Your task to perform on an android device: open wifi settings Image 0: 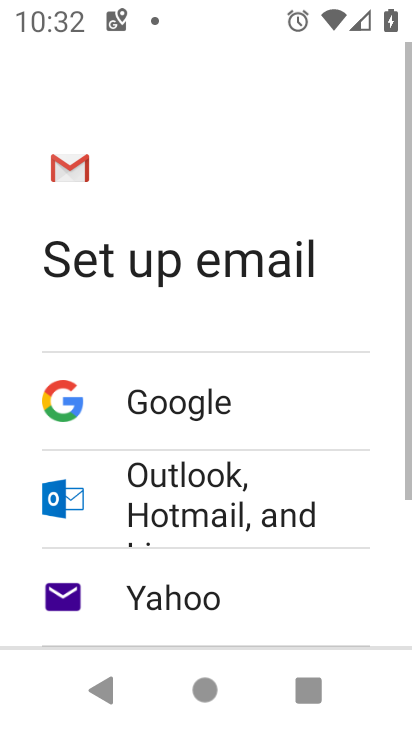
Step 0: press home button
Your task to perform on an android device: open wifi settings Image 1: 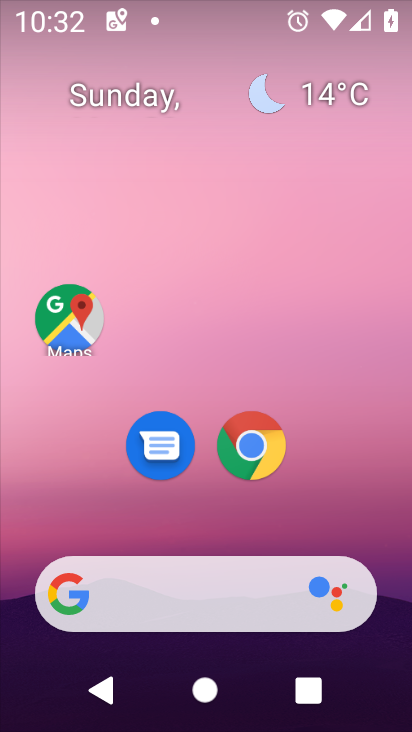
Step 1: drag from (187, 539) to (278, 136)
Your task to perform on an android device: open wifi settings Image 2: 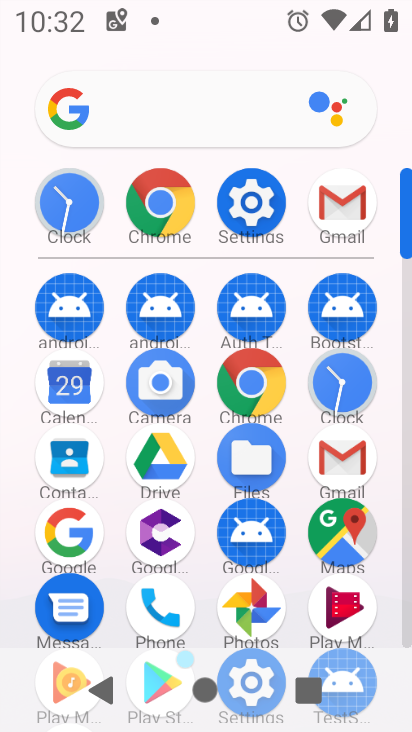
Step 2: click (242, 184)
Your task to perform on an android device: open wifi settings Image 3: 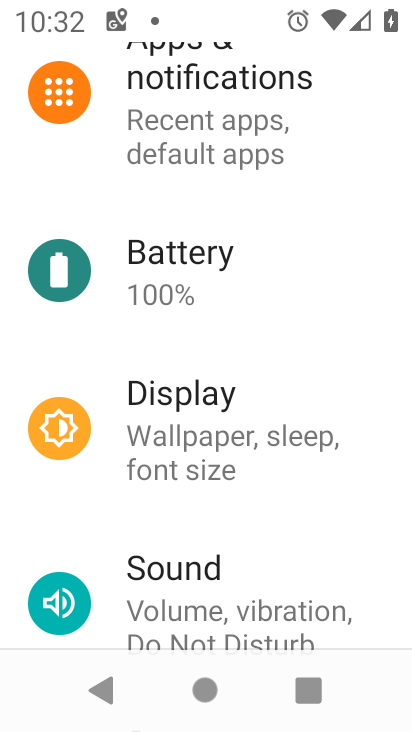
Step 3: drag from (168, 161) to (301, 730)
Your task to perform on an android device: open wifi settings Image 4: 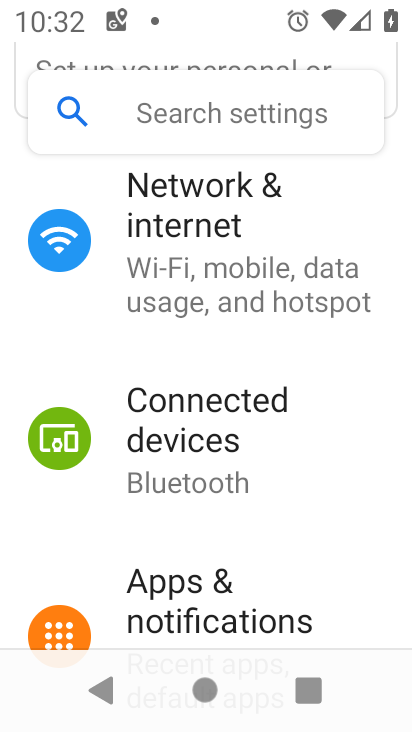
Step 4: drag from (225, 244) to (294, 724)
Your task to perform on an android device: open wifi settings Image 5: 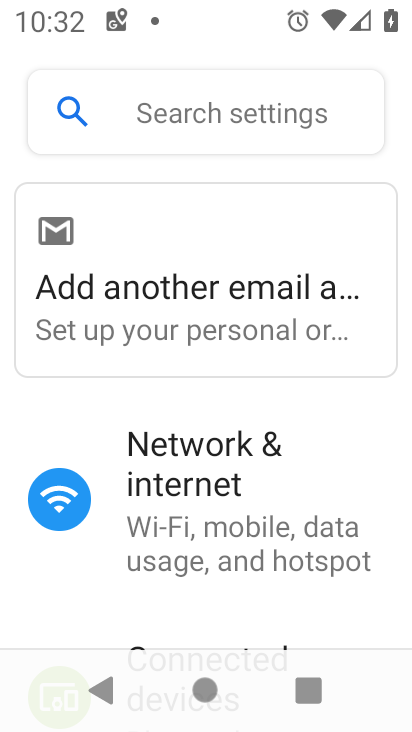
Step 5: click (187, 458)
Your task to perform on an android device: open wifi settings Image 6: 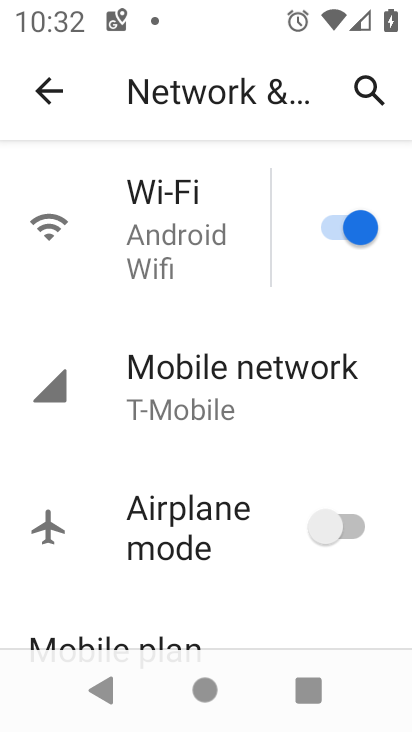
Step 6: click (182, 229)
Your task to perform on an android device: open wifi settings Image 7: 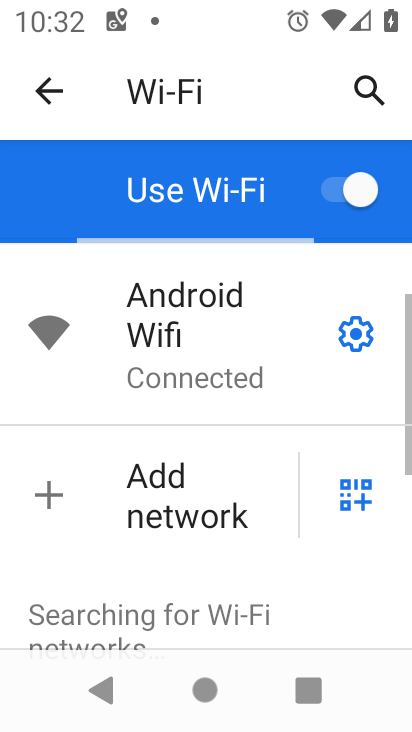
Step 7: task complete